Your task to perform on an android device: Add logitech g903 to the cart on walmart, then select checkout. Image 0: 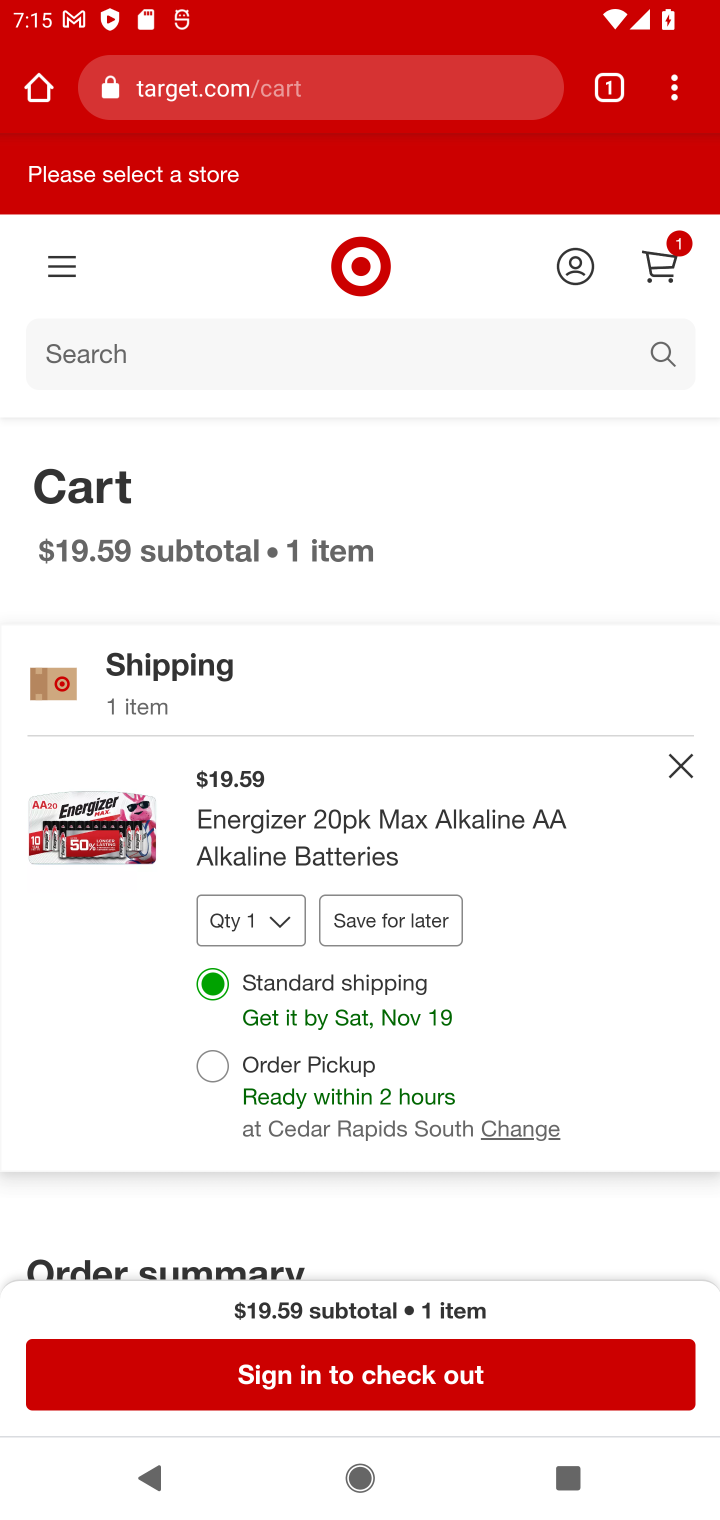
Step 0: press home button
Your task to perform on an android device: Add logitech g903 to the cart on walmart, then select checkout. Image 1: 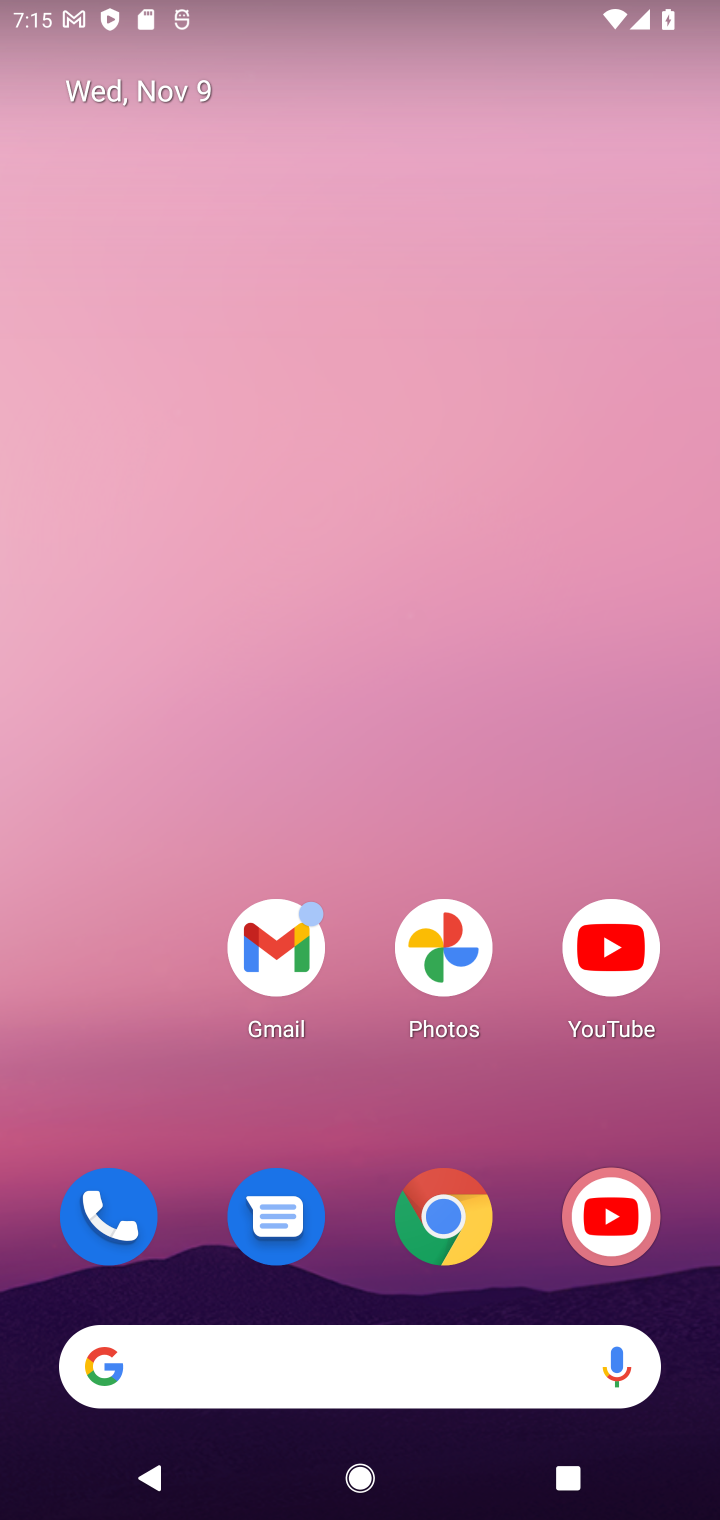
Step 1: drag from (333, 967) to (552, 166)
Your task to perform on an android device: Add logitech g903 to the cart on walmart, then select checkout. Image 2: 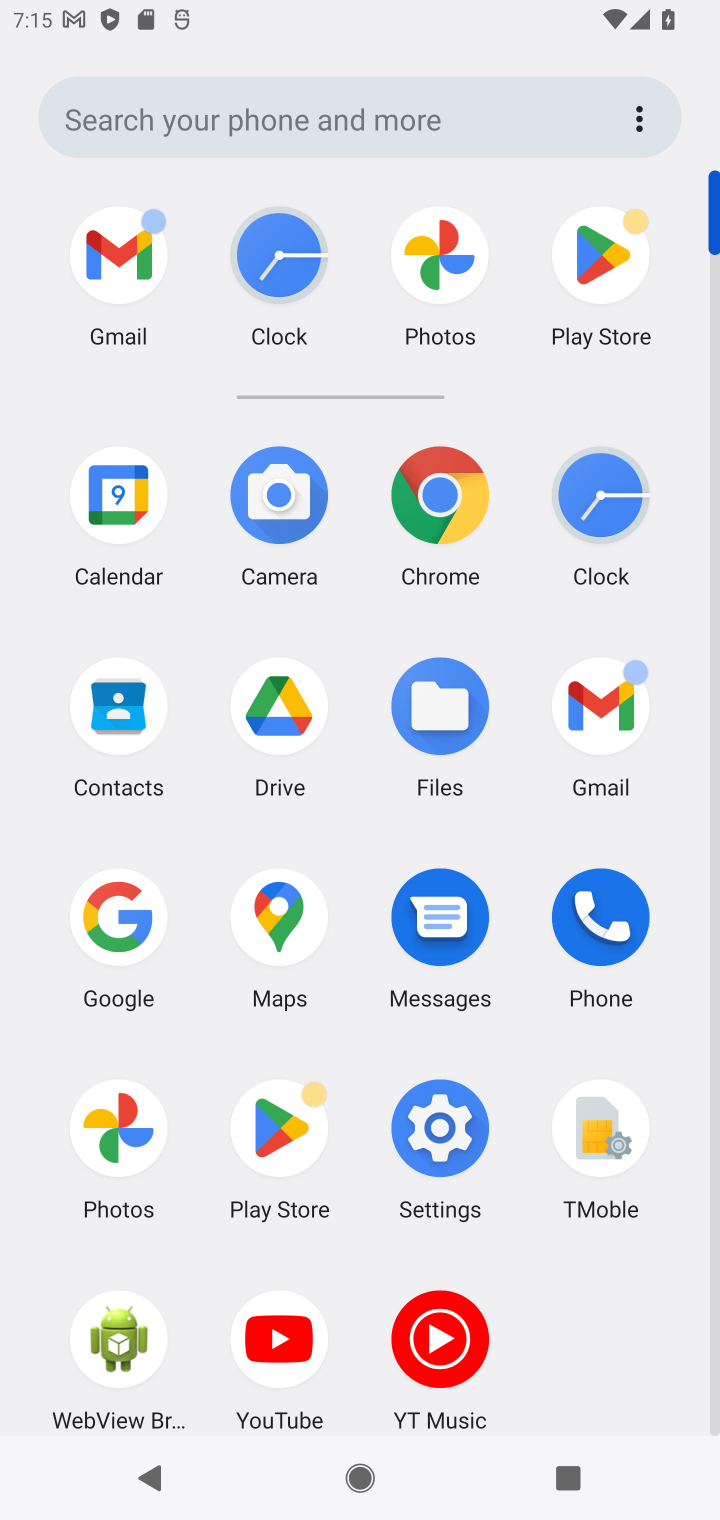
Step 2: click (437, 496)
Your task to perform on an android device: Add logitech g903 to the cart on walmart, then select checkout. Image 3: 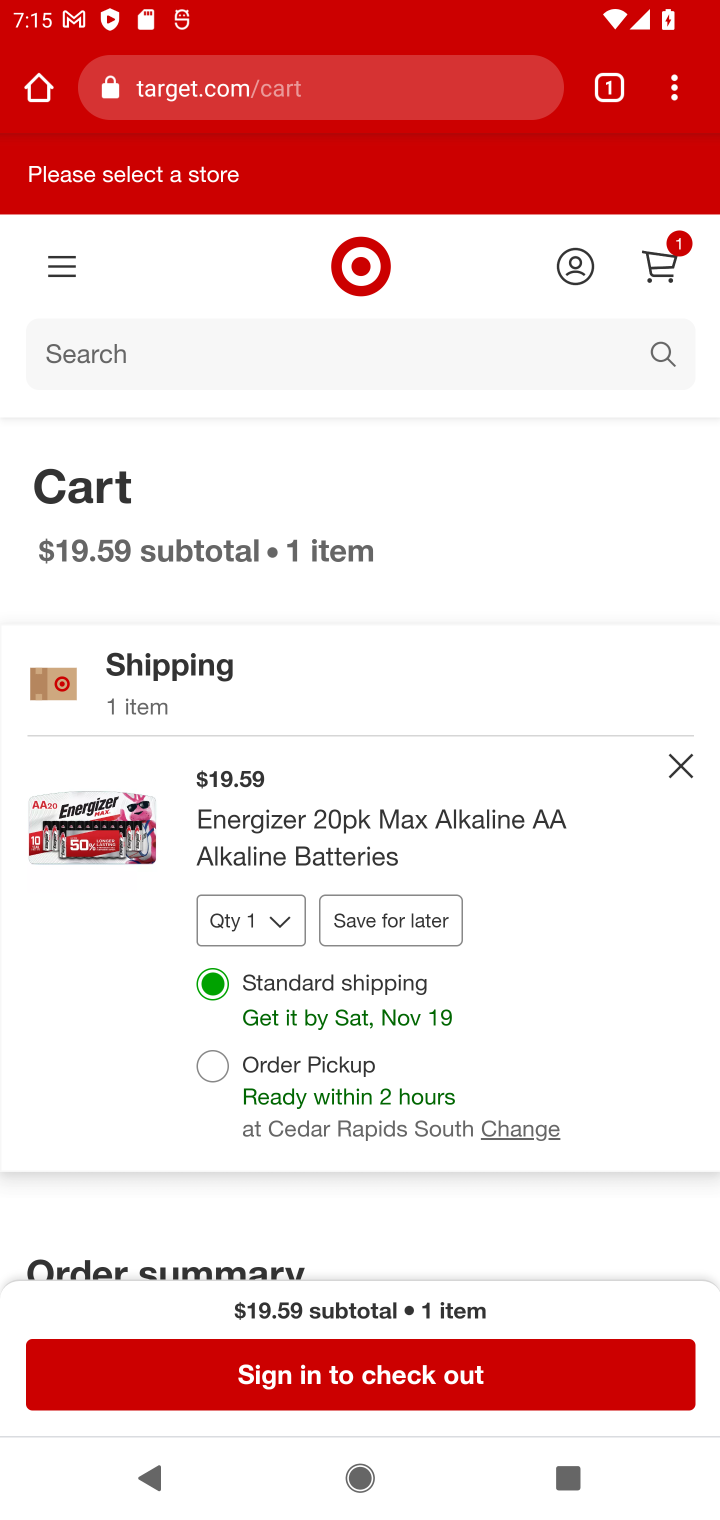
Step 3: click (390, 105)
Your task to perform on an android device: Add logitech g903 to the cart on walmart, then select checkout. Image 4: 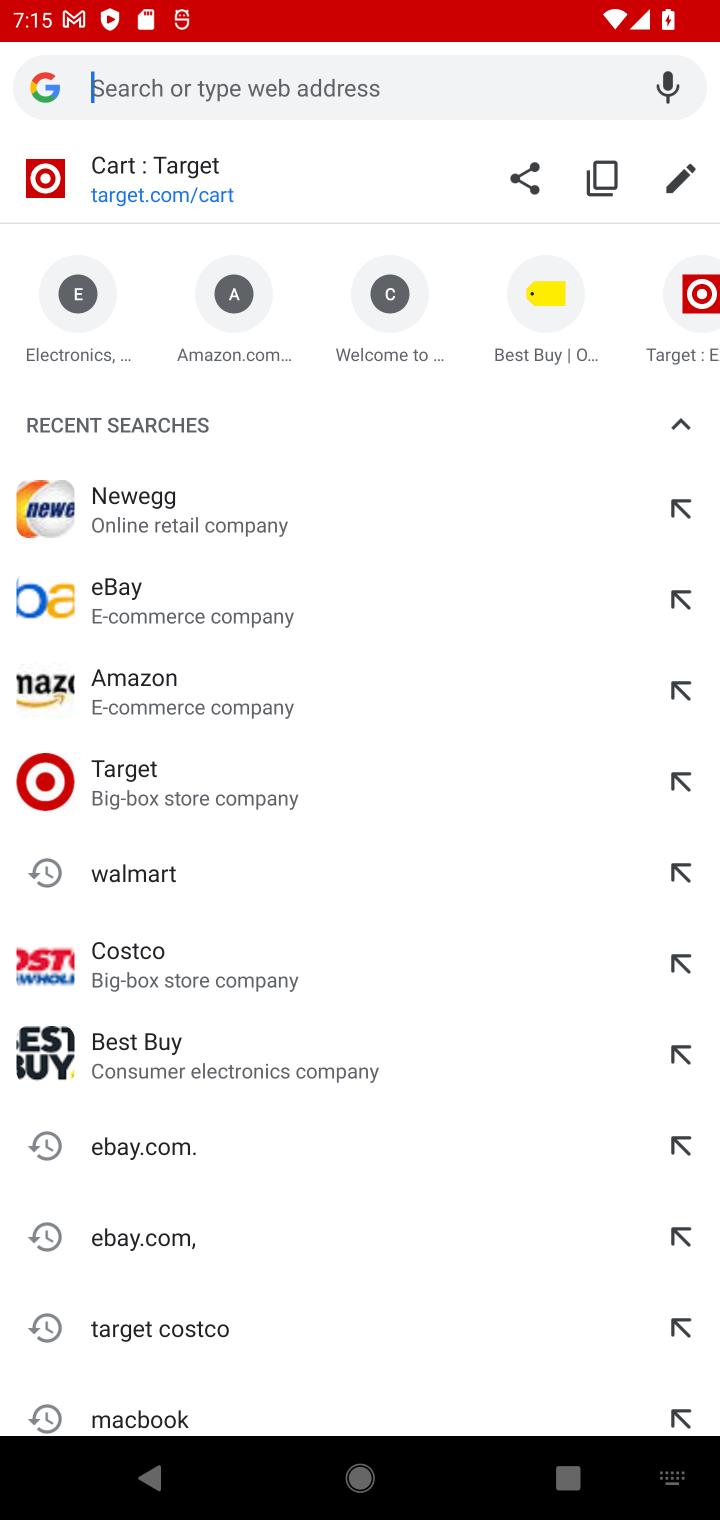
Step 4: type "walmart.com"
Your task to perform on an android device: Add logitech g903 to the cart on walmart, then select checkout. Image 5: 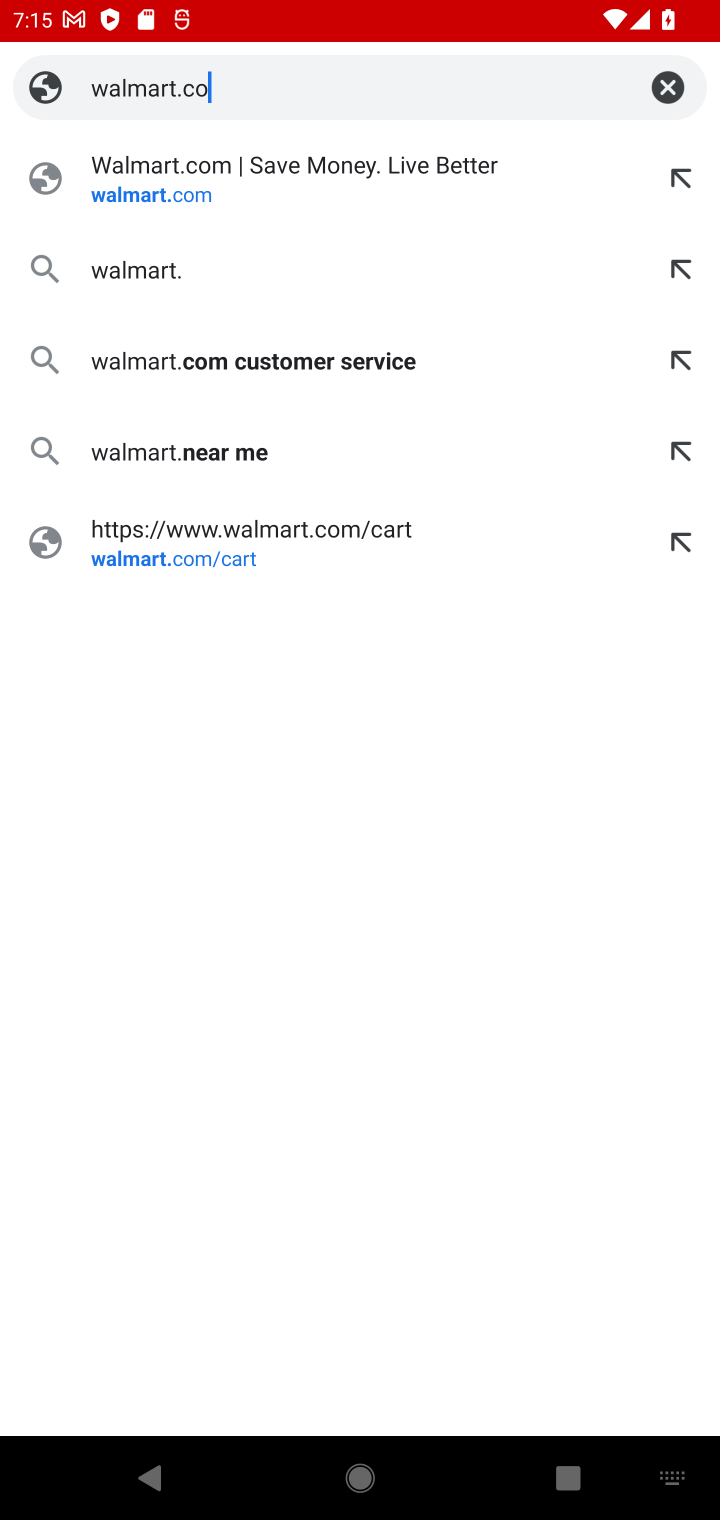
Step 5: press enter
Your task to perform on an android device: Add logitech g903 to the cart on walmart, then select checkout. Image 6: 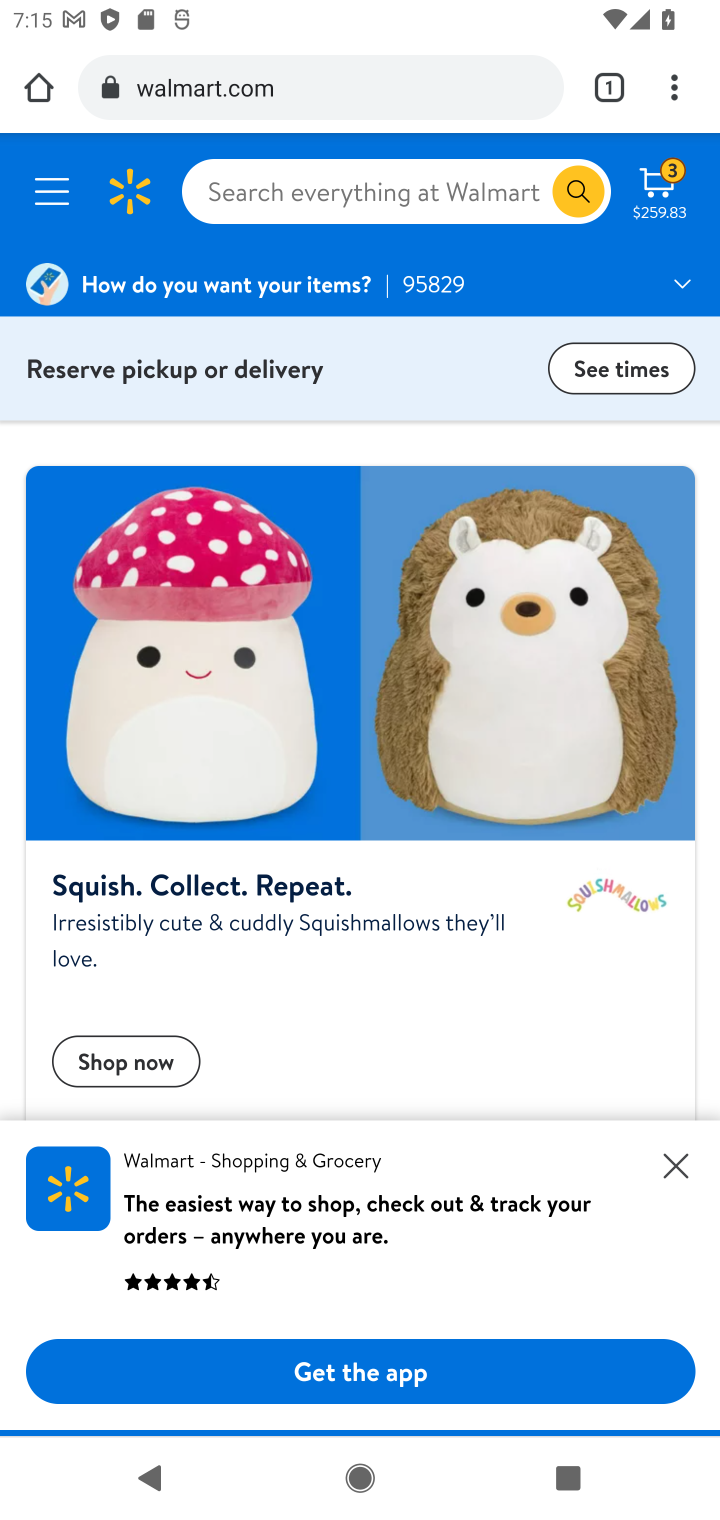
Step 6: click (476, 201)
Your task to perform on an android device: Add logitech g903 to the cart on walmart, then select checkout. Image 7: 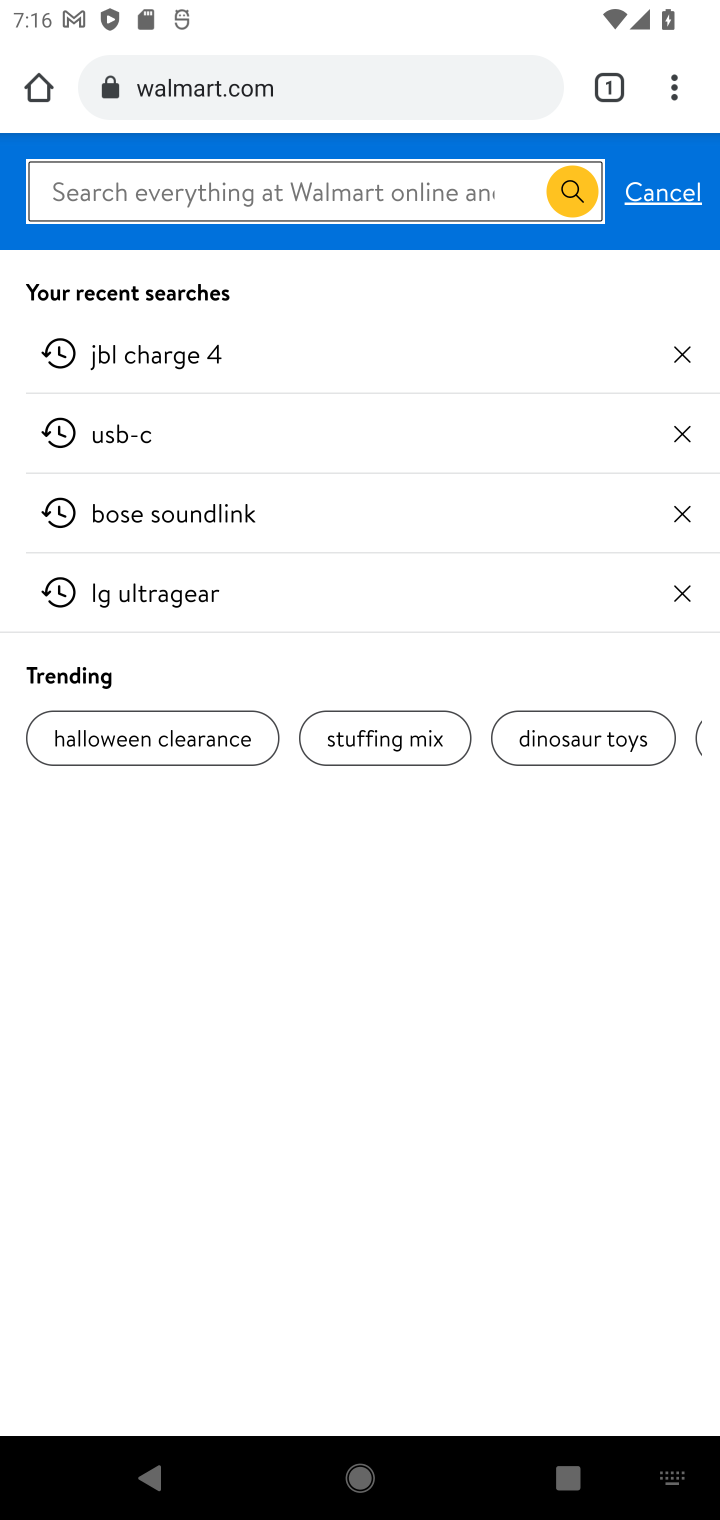
Step 7: type "logitech g903"
Your task to perform on an android device: Add logitech g903 to the cart on walmart, then select checkout. Image 8: 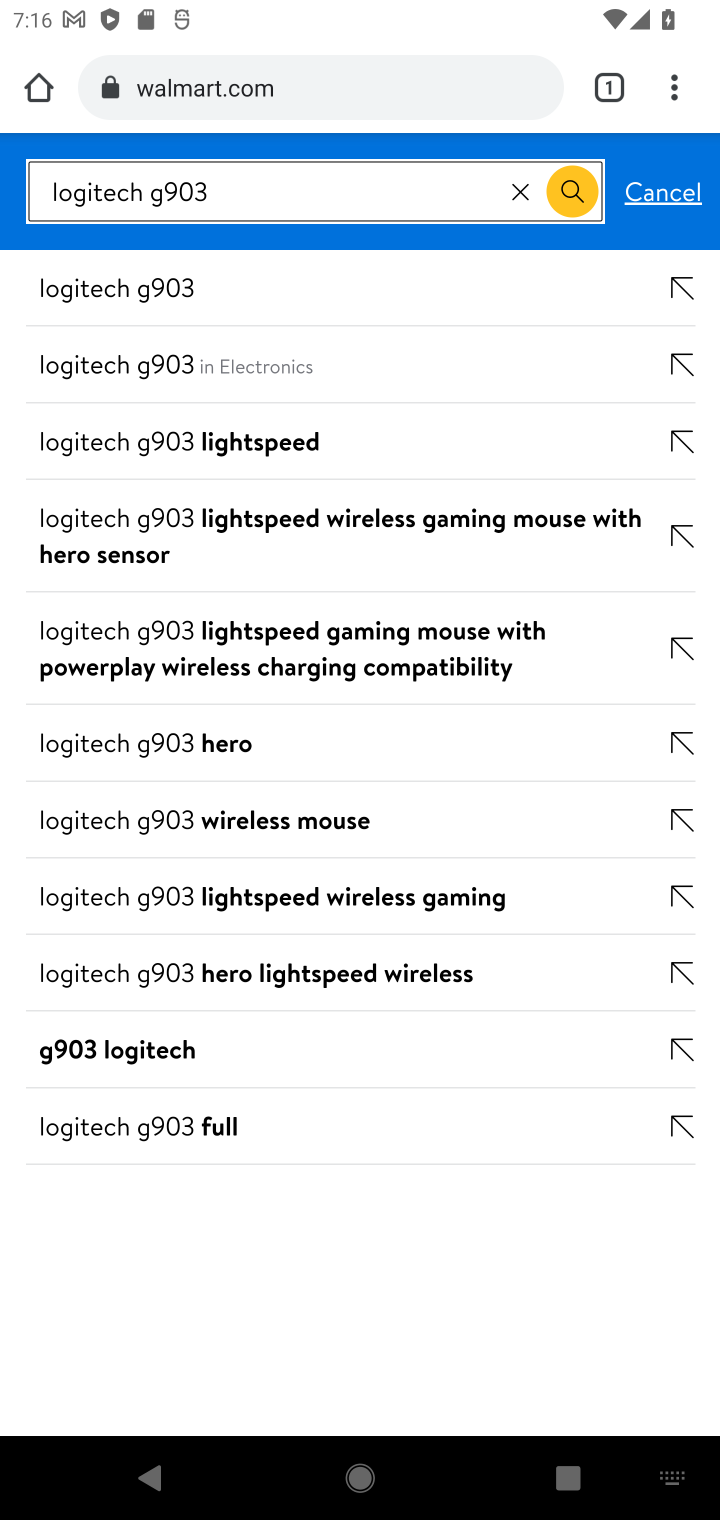
Step 8: press enter
Your task to perform on an android device: Add logitech g903 to the cart on walmart, then select checkout. Image 9: 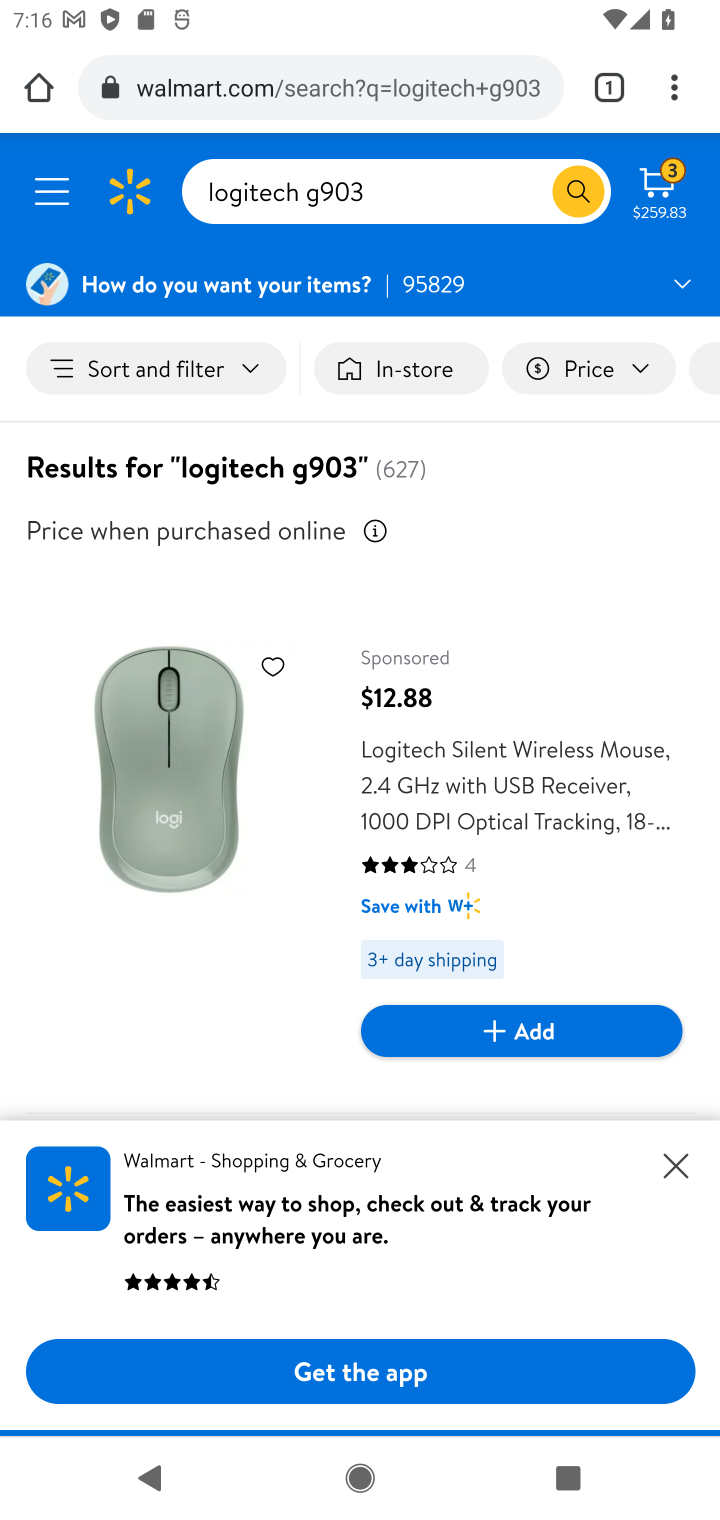
Step 9: drag from (267, 959) to (315, 226)
Your task to perform on an android device: Add logitech g903 to the cart on walmart, then select checkout. Image 10: 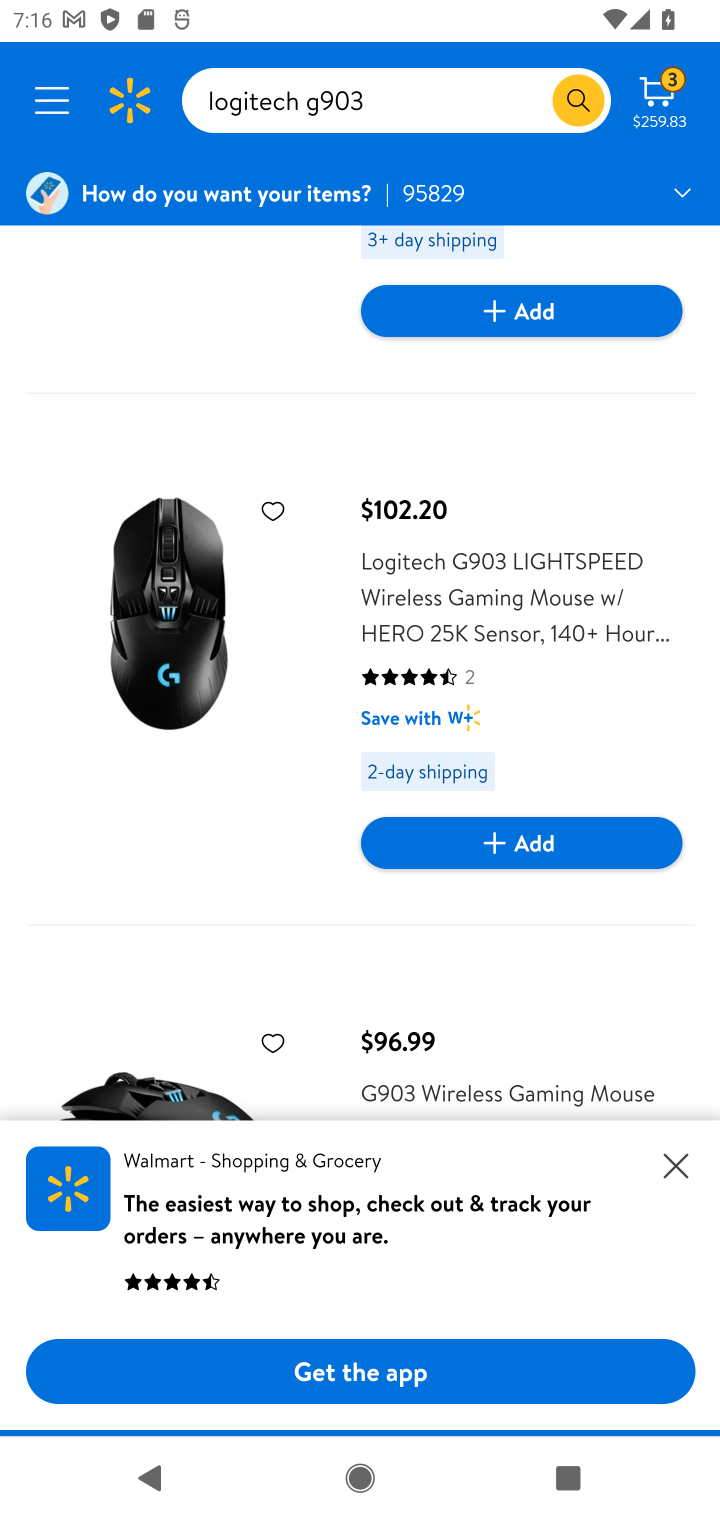
Step 10: click (575, 854)
Your task to perform on an android device: Add logitech g903 to the cart on walmart, then select checkout. Image 11: 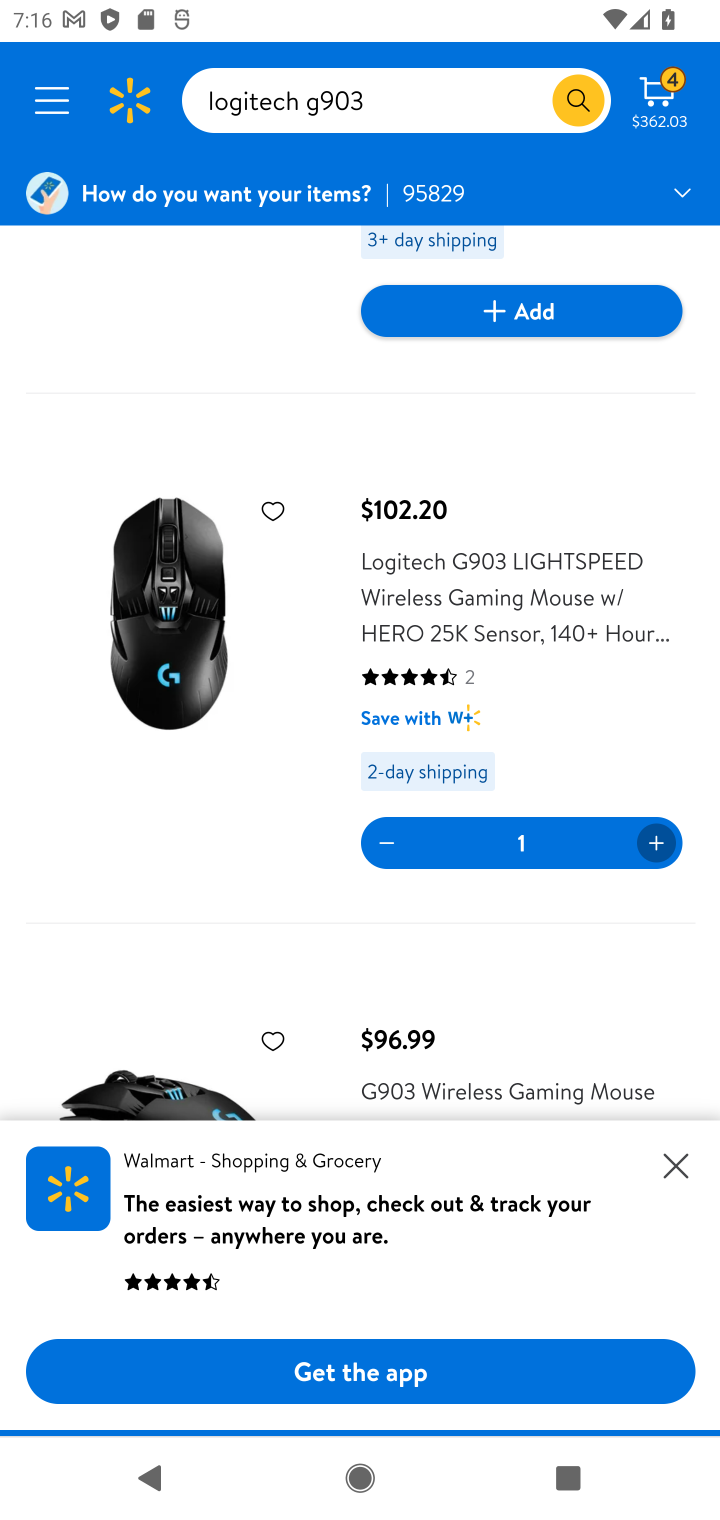
Step 11: click (652, 91)
Your task to perform on an android device: Add logitech g903 to the cart on walmart, then select checkout. Image 12: 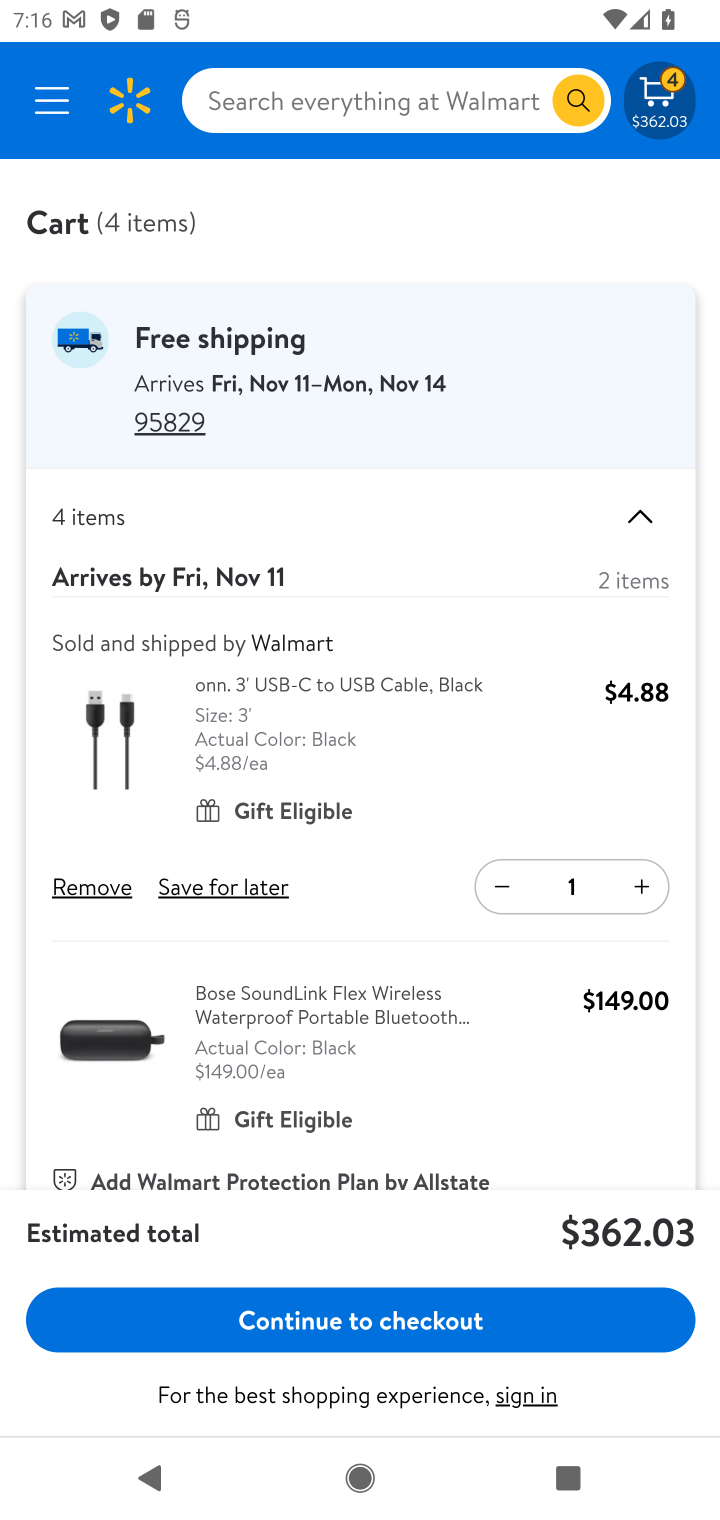
Step 12: click (461, 1321)
Your task to perform on an android device: Add logitech g903 to the cart on walmart, then select checkout. Image 13: 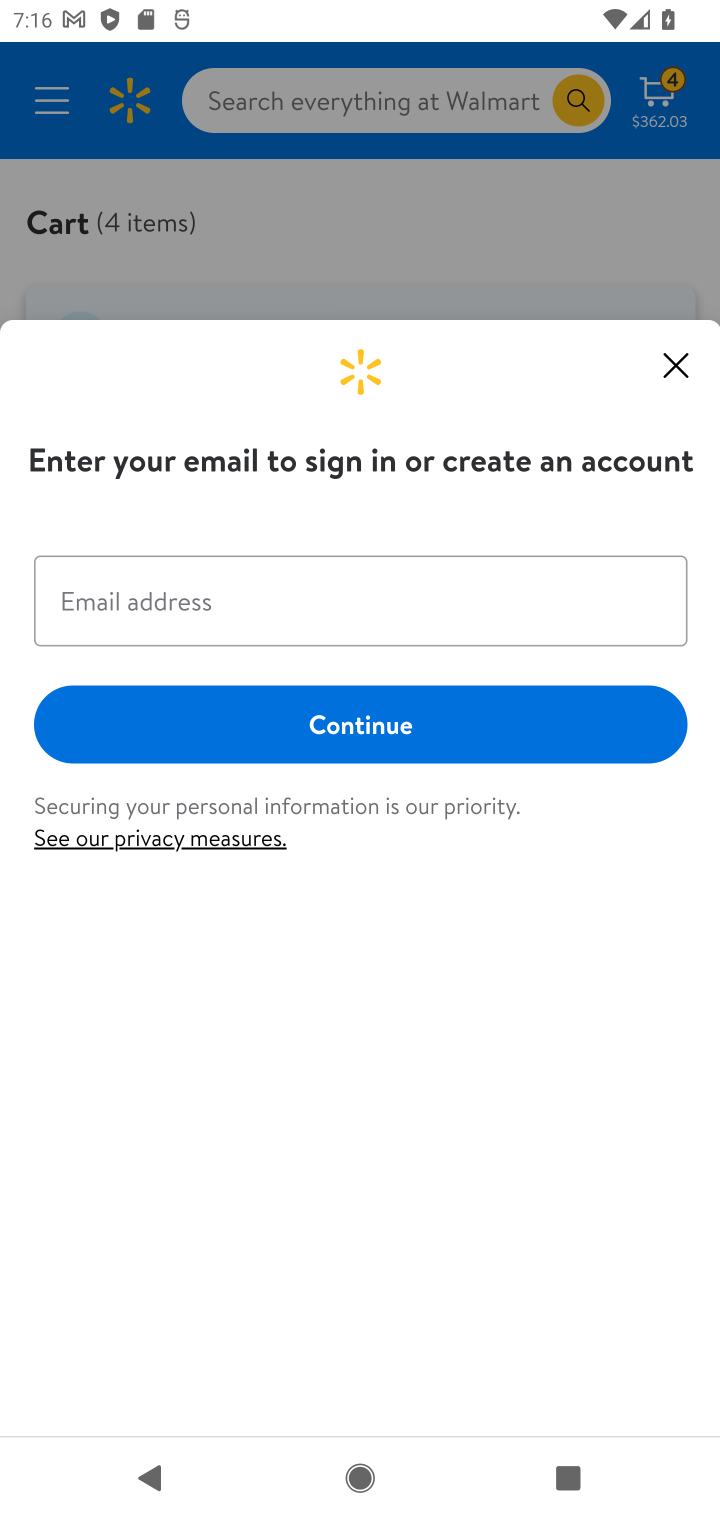
Step 13: task complete